Your task to perform on an android device: create a new album in the google photos Image 0: 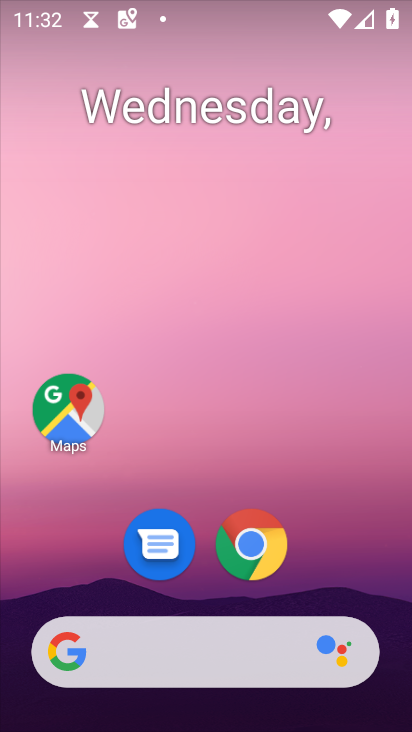
Step 0: drag from (281, 661) to (171, 153)
Your task to perform on an android device: create a new album in the google photos Image 1: 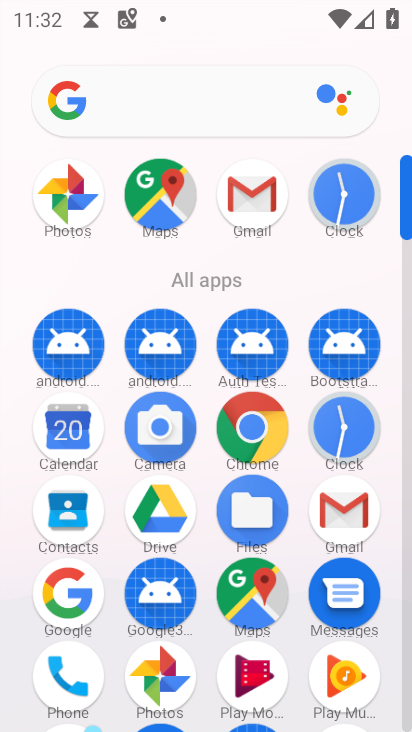
Step 1: drag from (111, 557) to (186, 112)
Your task to perform on an android device: create a new album in the google photos Image 2: 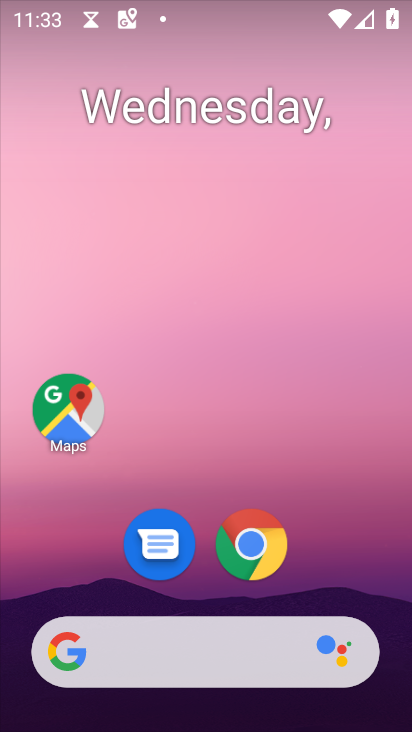
Step 2: drag from (243, 651) to (392, 33)
Your task to perform on an android device: create a new album in the google photos Image 3: 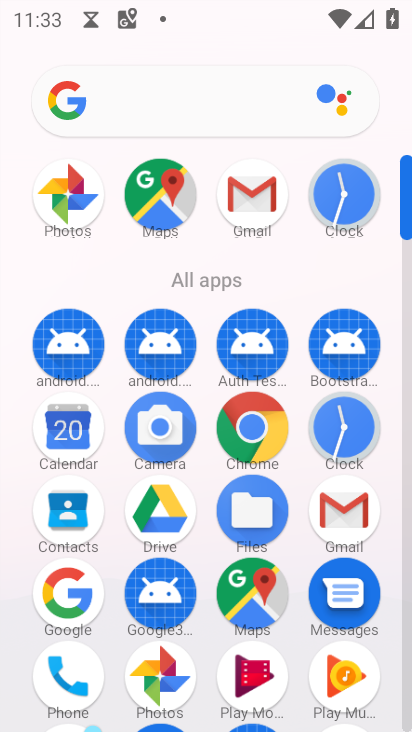
Step 3: drag from (209, 549) to (226, 436)
Your task to perform on an android device: create a new album in the google photos Image 4: 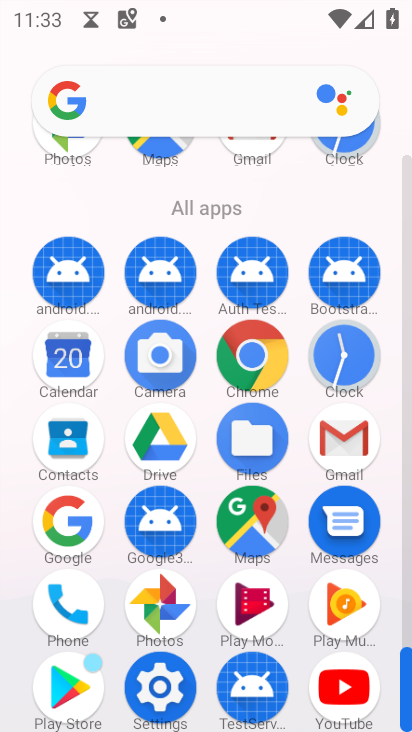
Step 4: click (158, 611)
Your task to perform on an android device: create a new album in the google photos Image 5: 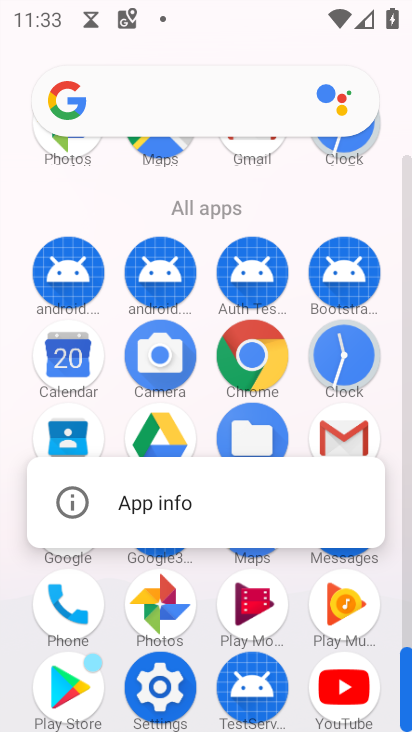
Step 5: click (151, 588)
Your task to perform on an android device: create a new album in the google photos Image 6: 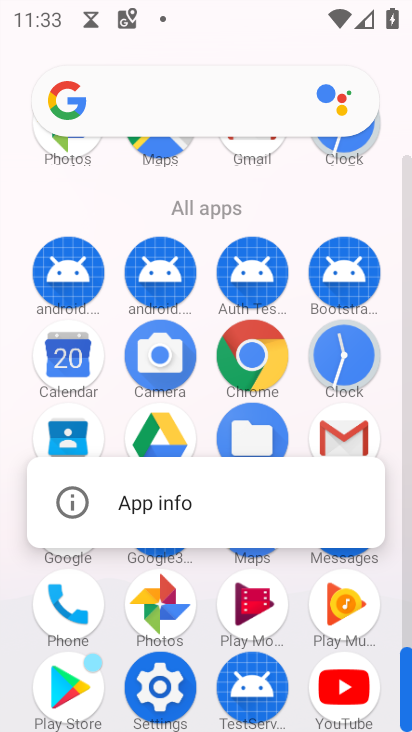
Step 6: click (169, 603)
Your task to perform on an android device: create a new album in the google photos Image 7: 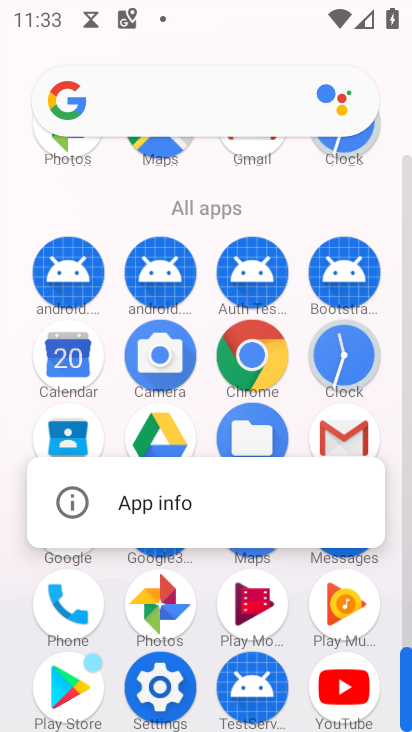
Step 7: click (169, 603)
Your task to perform on an android device: create a new album in the google photos Image 8: 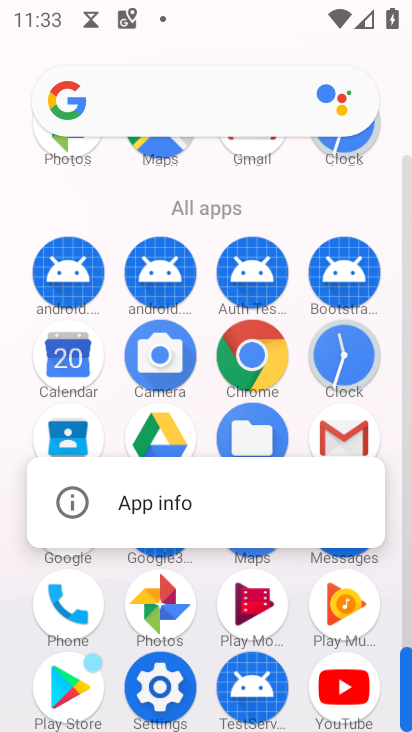
Step 8: click (169, 603)
Your task to perform on an android device: create a new album in the google photos Image 9: 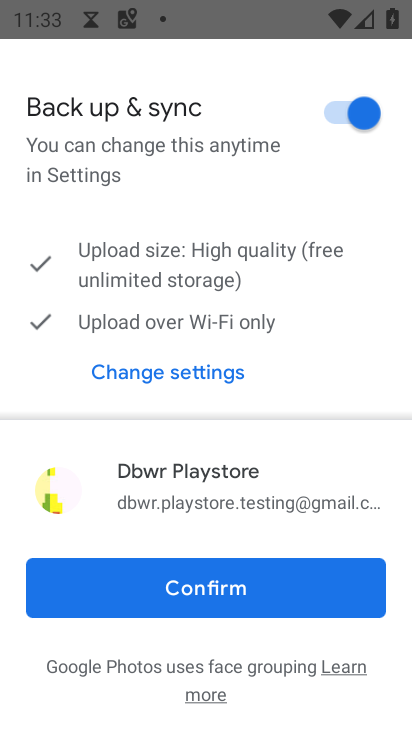
Step 9: click (173, 602)
Your task to perform on an android device: create a new album in the google photos Image 10: 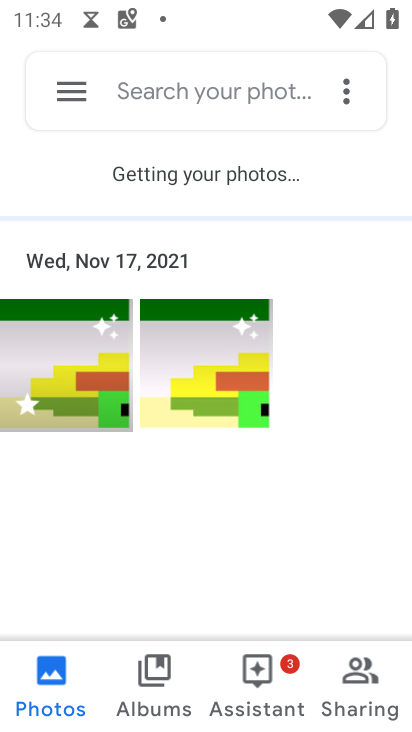
Step 10: click (196, 403)
Your task to perform on an android device: create a new album in the google photos Image 11: 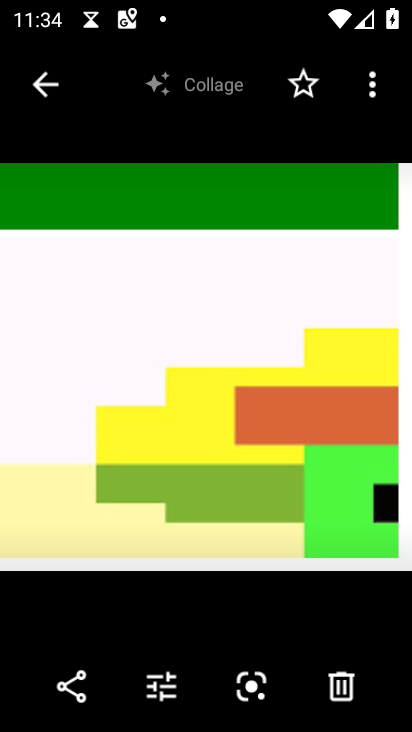
Step 11: click (386, 89)
Your task to perform on an android device: create a new album in the google photos Image 12: 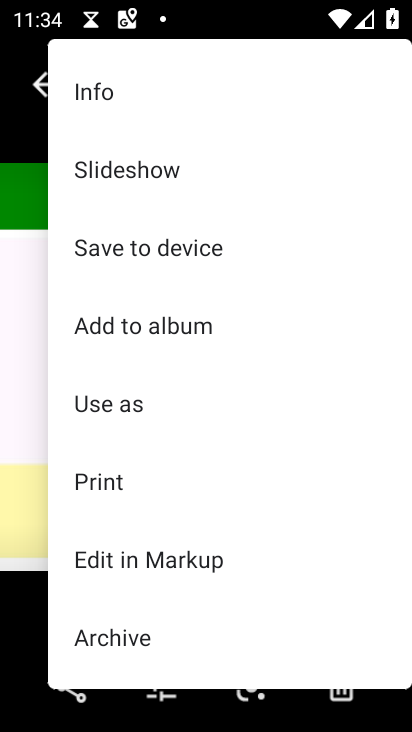
Step 12: click (161, 315)
Your task to perform on an android device: create a new album in the google photos Image 13: 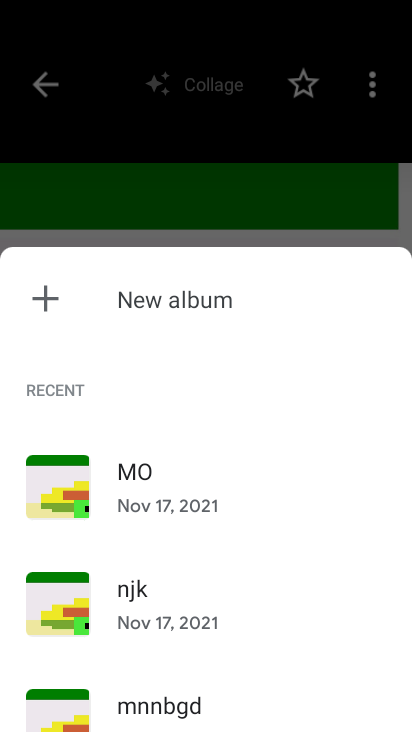
Step 13: click (169, 298)
Your task to perform on an android device: create a new album in the google photos Image 14: 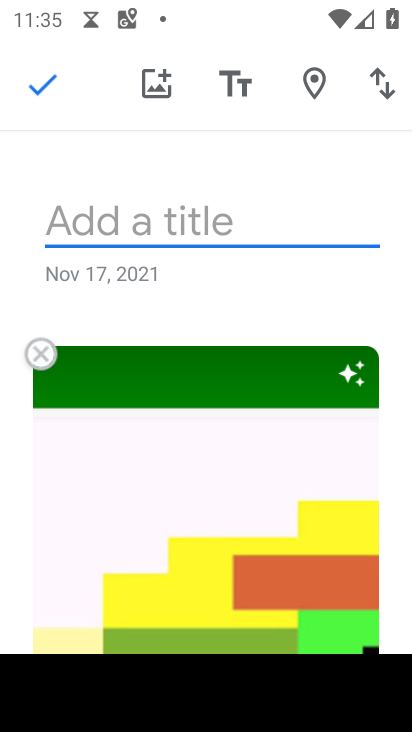
Step 14: click (173, 223)
Your task to perform on an android device: create a new album in the google photos Image 15: 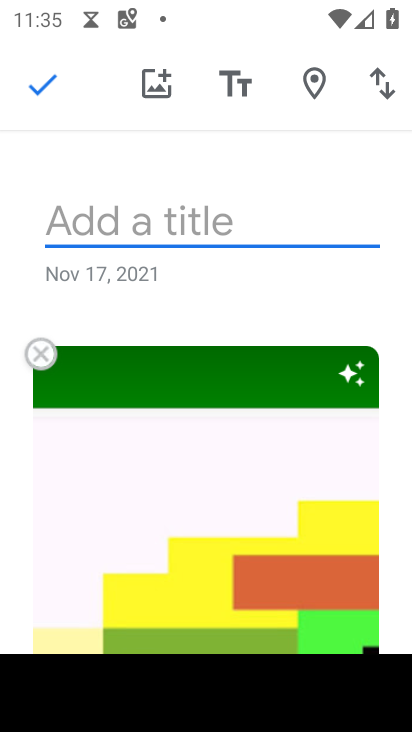
Step 15: drag from (400, 704) to (384, 527)
Your task to perform on an android device: create a new album in the google photos Image 16: 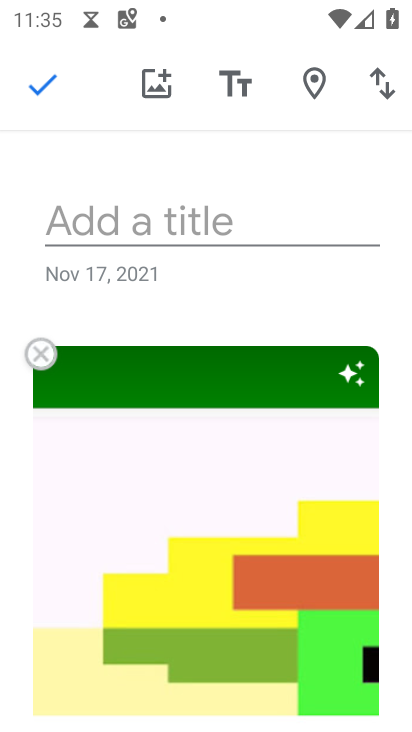
Step 16: drag from (402, 701) to (396, 628)
Your task to perform on an android device: create a new album in the google photos Image 17: 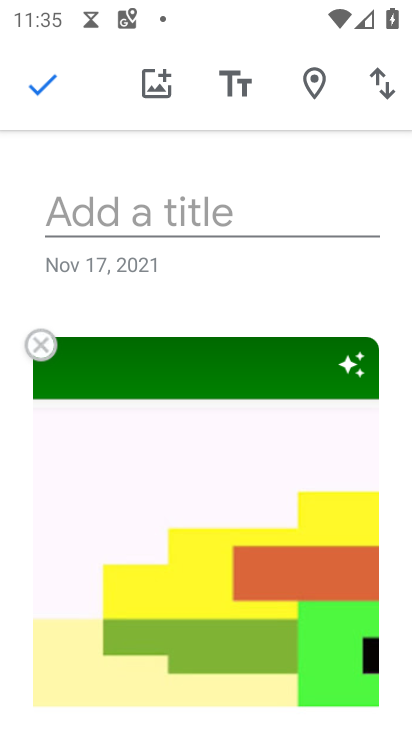
Step 17: drag from (353, 674) to (343, 551)
Your task to perform on an android device: create a new album in the google photos Image 18: 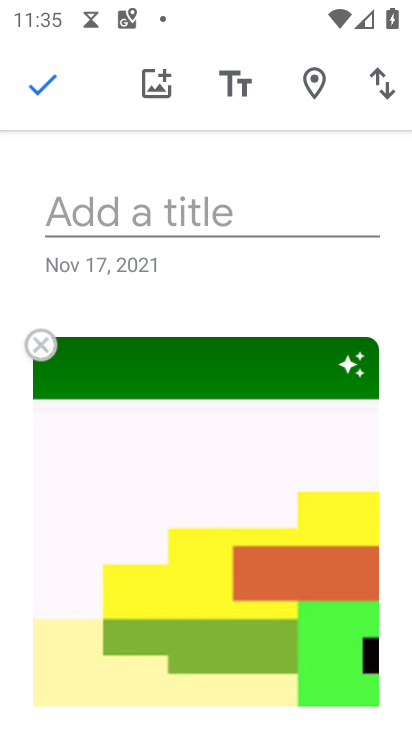
Step 18: drag from (346, 611) to (332, 515)
Your task to perform on an android device: create a new album in the google photos Image 19: 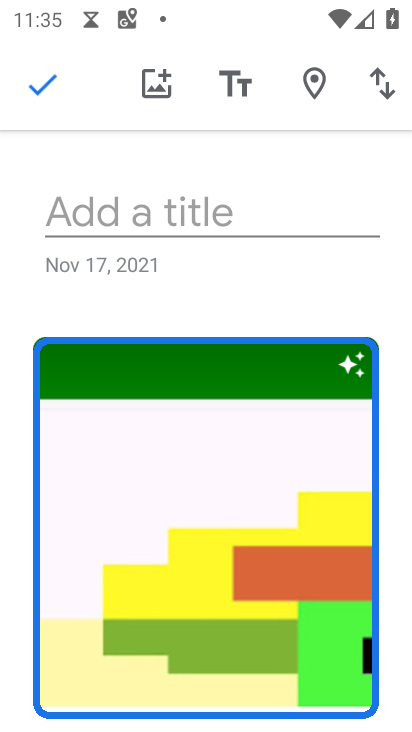
Step 19: drag from (399, 730) to (364, 450)
Your task to perform on an android device: create a new album in the google photos Image 20: 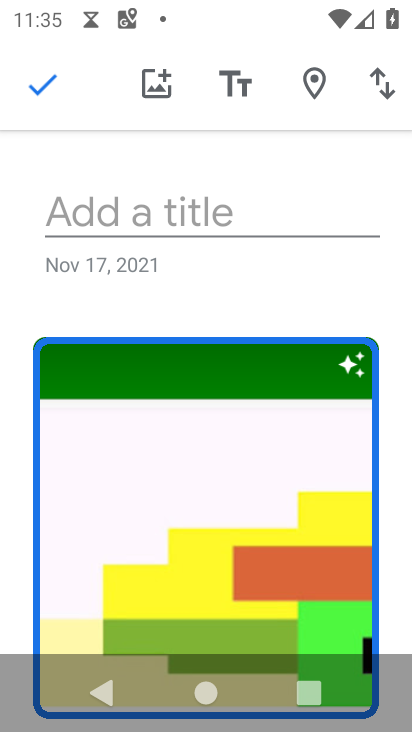
Step 20: drag from (355, 698) to (389, 553)
Your task to perform on an android device: create a new album in the google photos Image 21: 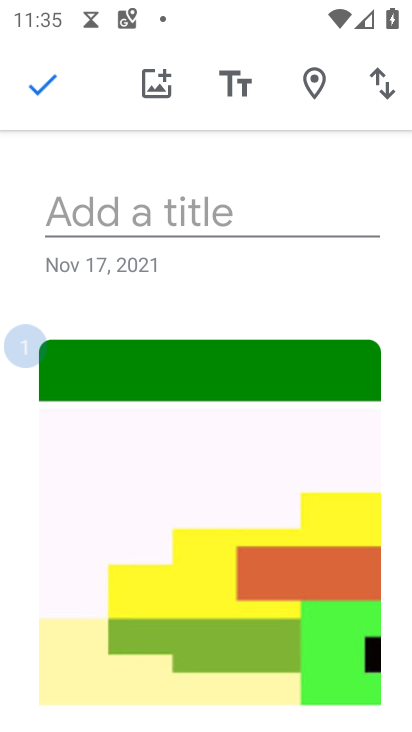
Step 21: click (220, 223)
Your task to perform on an android device: create a new album in the google photos Image 22: 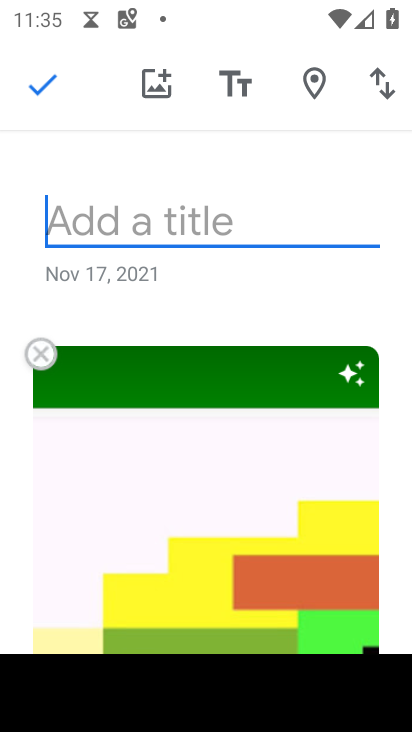
Step 22: drag from (387, 703) to (359, 597)
Your task to perform on an android device: create a new album in the google photos Image 23: 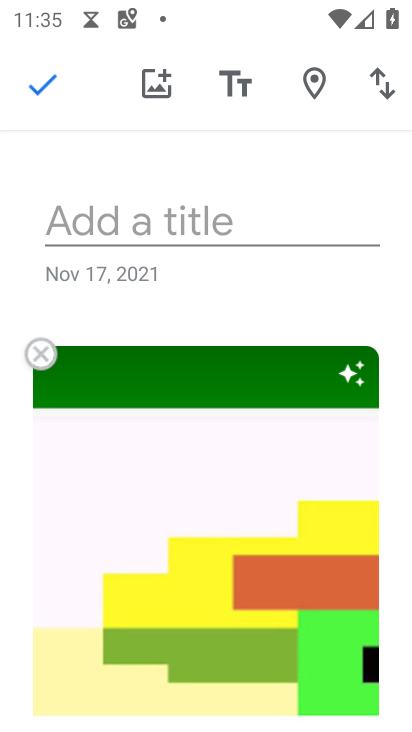
Step 23: click (134, 226)
Your task to perform on an android device: create a new album in the google photos Image 24: 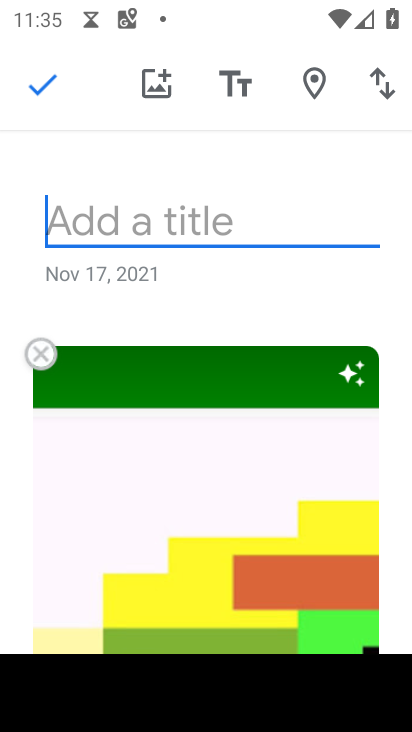
Step 24: click (388, 710)
Your task to perform on an android device: create a new album in the google photos Image 25: 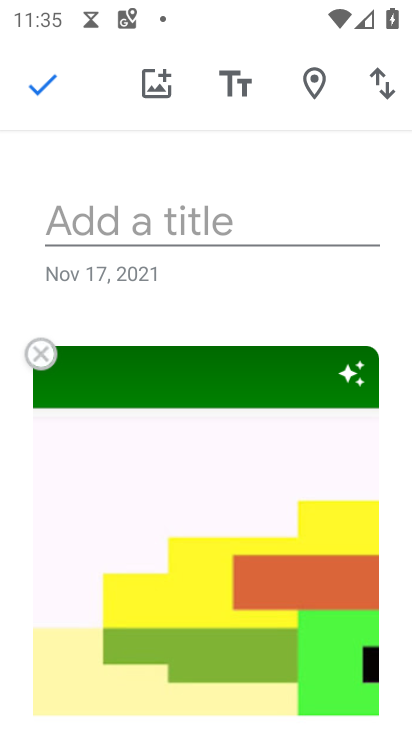
Step 25: drag from (402, 720) to (373, 451)
Your task to perform on an android device: create a new album in the google photos Image 26: 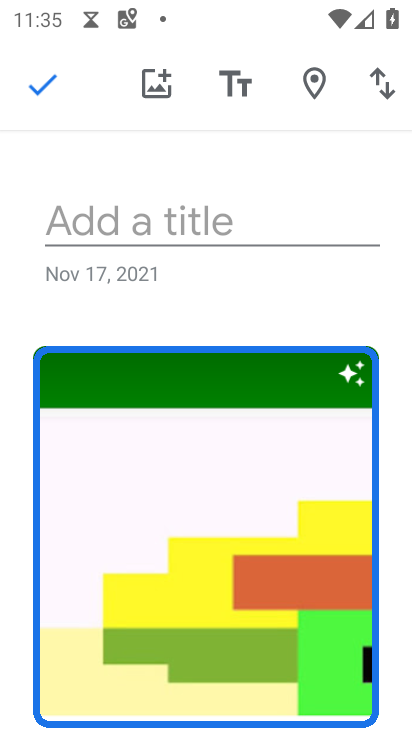
Step 26: click (166, 212)
Your task to perform on an android device: create a new album in the google photos Image 27: 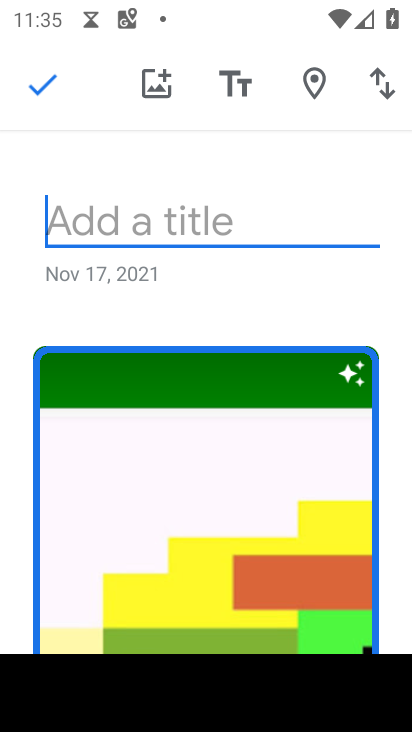
Step 27: click (49, 87)
Your task to perform on an android device: create a new album in the google photos Image 28: 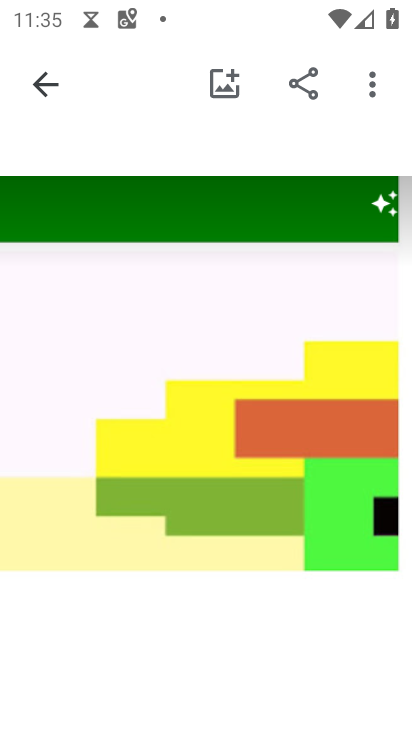
Step 28: task complete